Your task to perform on an android device: Open the web browser Image 0: 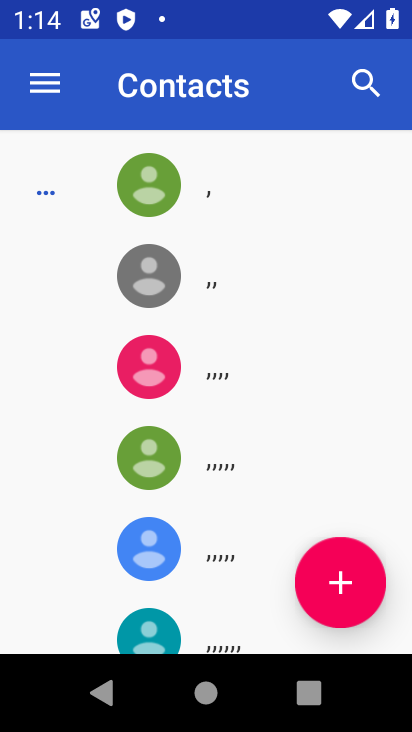
Step 0: press home button
Your task to perform on an android device: Open the web browser Image 1: 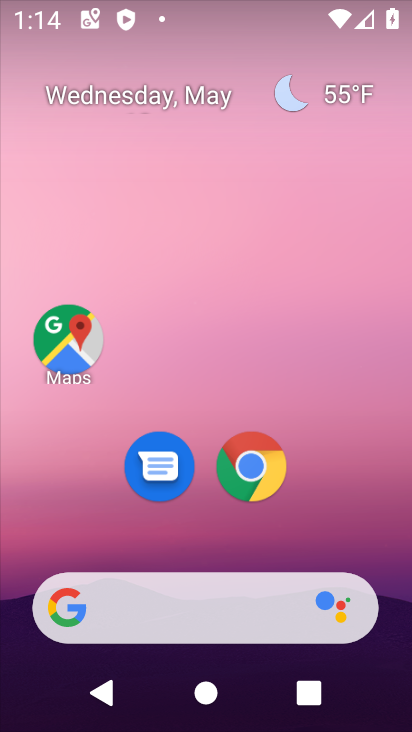
Step 1: click (244, 467)
Your task to perform on an android device: Open the web browser Image 2: 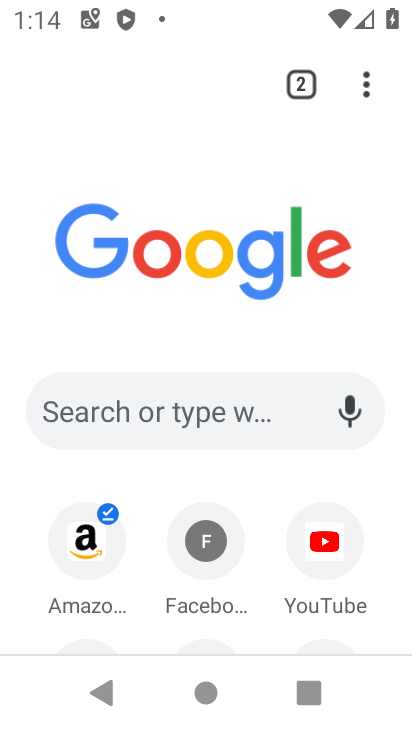
Step 2: task complete